Your task to perform on an android device: clear all cookies in the chrome app Image 0: 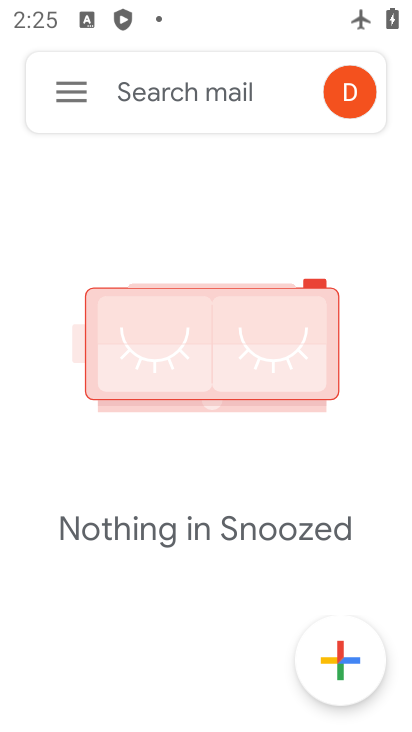
Step 0: press home button
Your task to perform on an android device: clear all cookies in the chrome app Image 1: 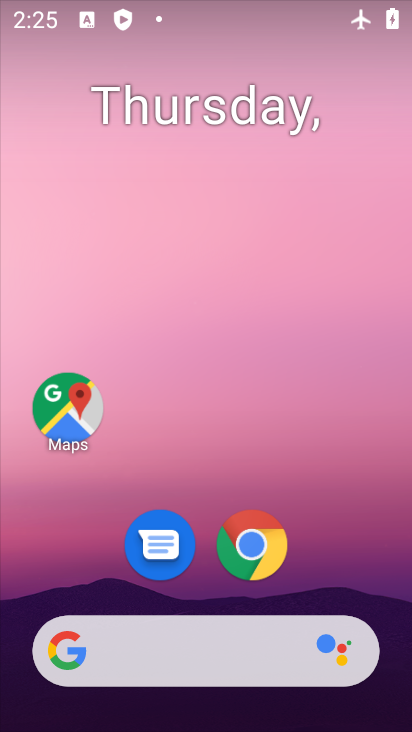
Step 1: click (251, 540)
Your task to perform on an android device: clear all cookies in the chrome app Image 2: 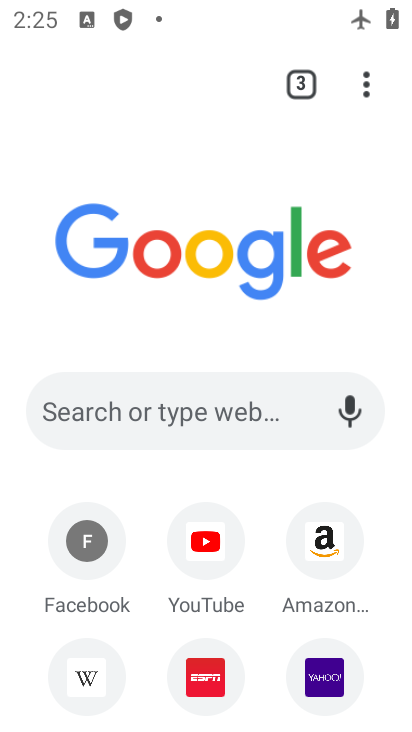
Step 2: click (367, 72)
Your task to perform on an android device: clear all cookies in the chrome app Image 3: 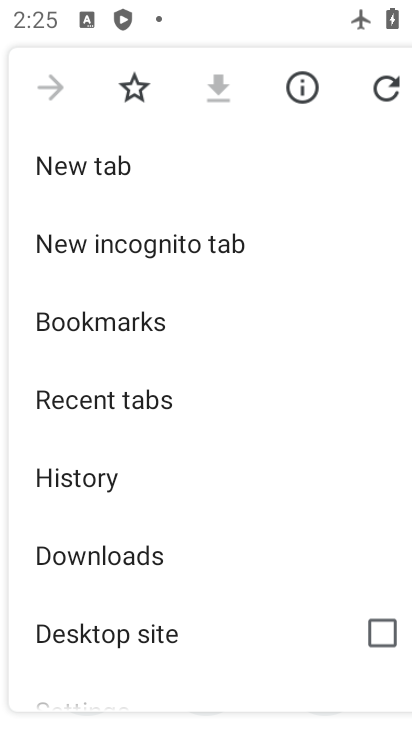
Step 3: drag from (195, 557) to (165, 146)
Your task to perform on an android device: clear all cookies in the chrome app Image 4: 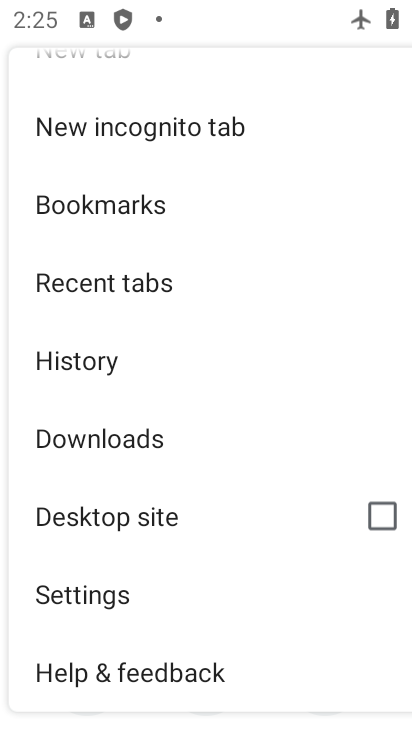
Step 4: click (124, 602)
Your task to perform on an android device: clear all cookies in the chrome app Image 5: 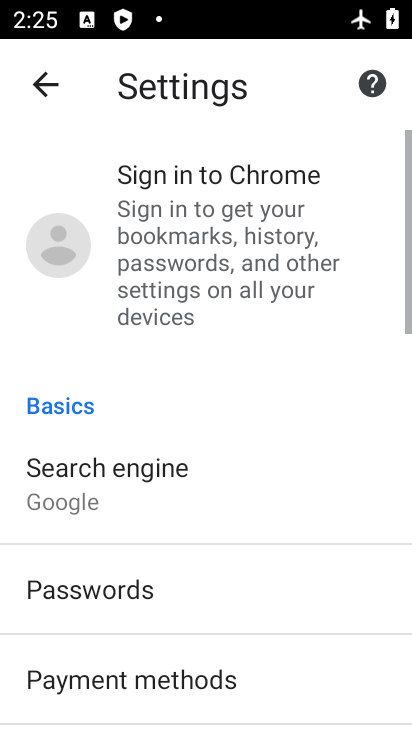
Step 5: drag from (277, 511) to (314, 90)
Your task to perform on an android device: clear all cookies in the chrome app Image 6: 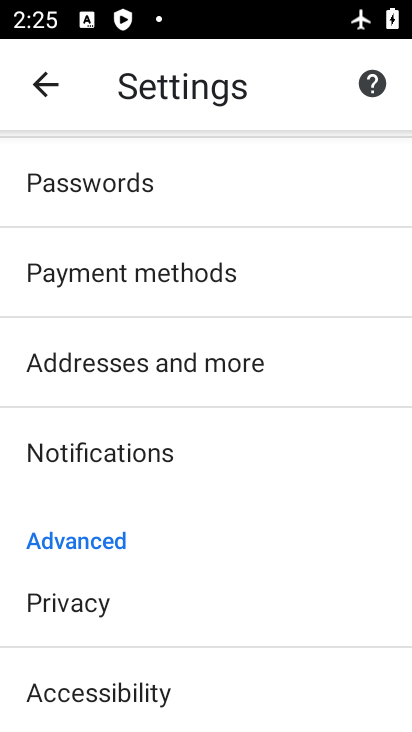
Step 6: click (271, 492)
Your task to perform on an android device: clear all cookies in the chrome app Image 7: 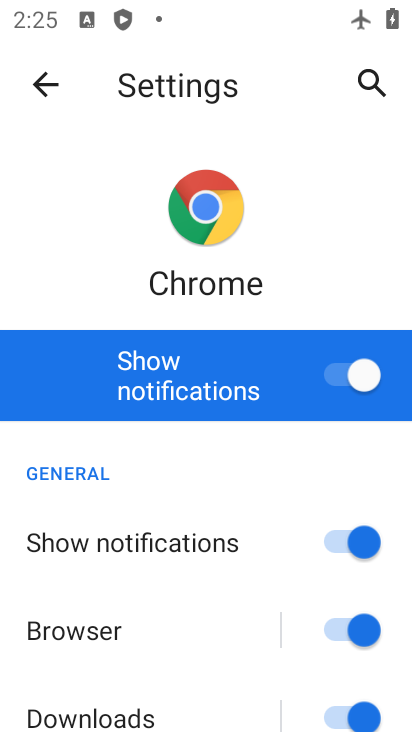
Step 7: click (43, 86)
Your task to perform on an android device: clear all cookies in the chrome app Image 8: 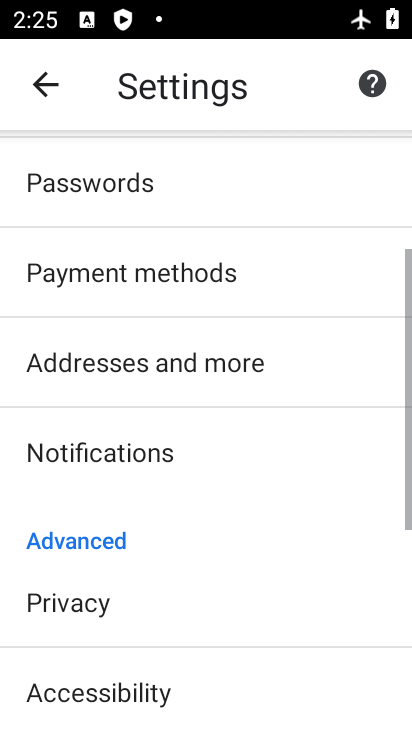
Step 8: drag from (304, 549) to (307, 242)
Your task to perform on an android device: clear all cookies in the chrome app Image 9: 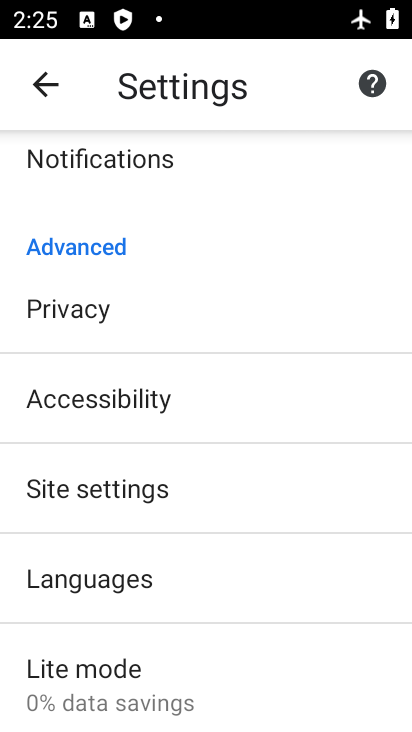
Step 9: drag from (273, 660) to (375, 184)
Your task to perform on an android device: clear all cookies in the chrome app Image 10: 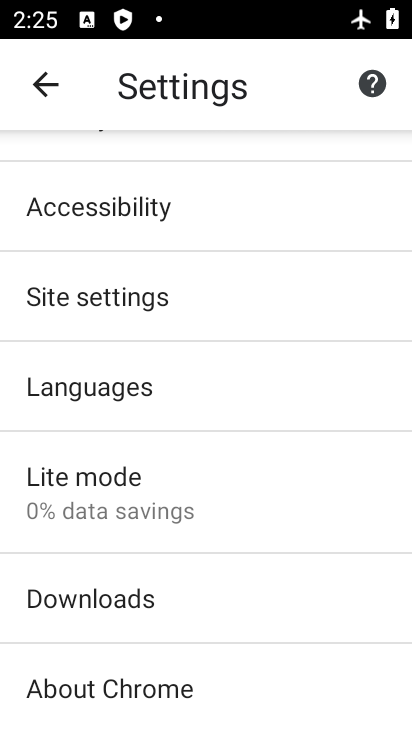
Step 10: click (32, 90)
Your task to perform on an android device: clear all cookies in the chrome app Image 11: 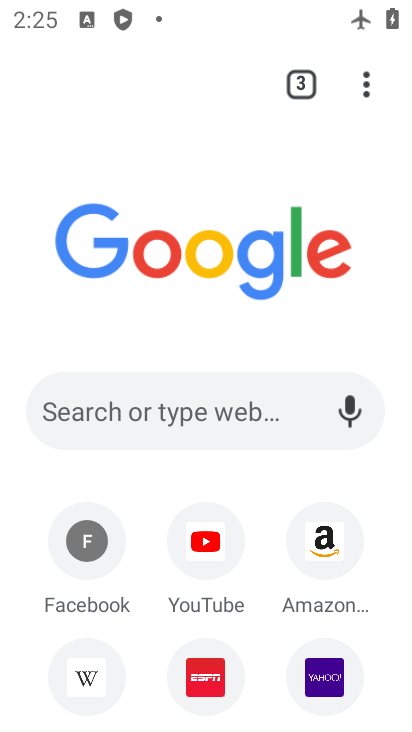
Step 11: click (363, 91)
Your task to perform on an android device: clear all cookies in the chrome app Image 12: 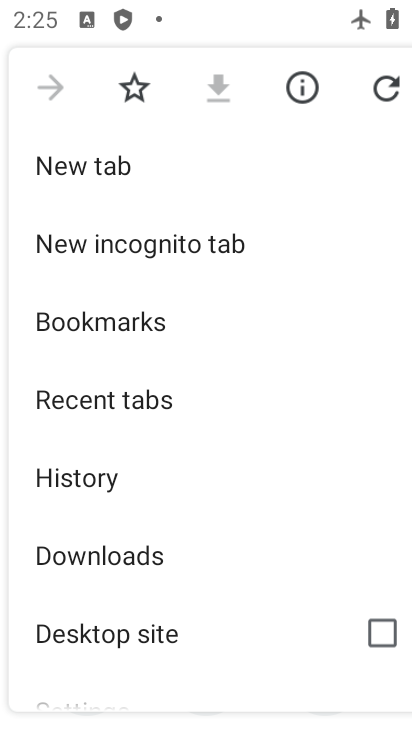
Step 12: click (102, 469)
Your task to perform on an android device: clear all cookies in the chrome app Image 13: 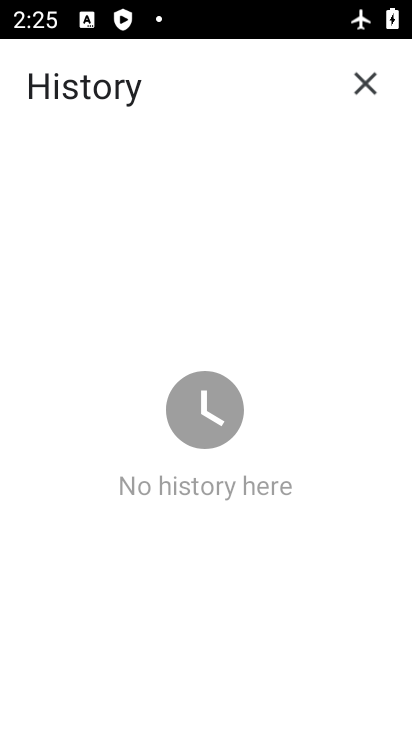
Step 13: task complete